Your task to perform on an android device: Open Wikipedia Image 0: 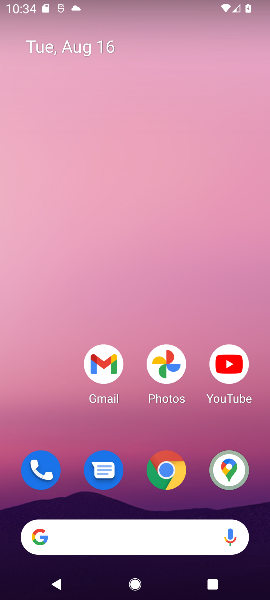
Step 0: click (47, 396)
Your task to perform on an android device: Open Wikipedia Image 1: 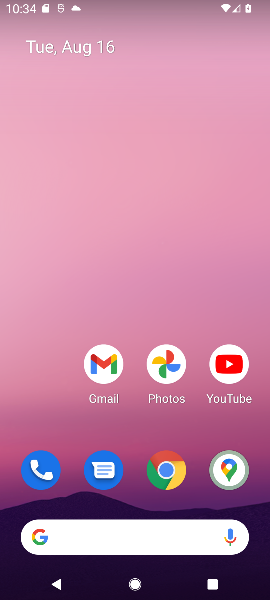
Step 1: click (163, 470)
Your task to perform on an android device: Open Wikipedia Image 2: 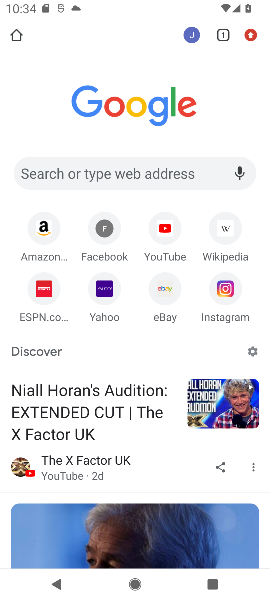
Step 2: click (226, 229)
Your task to perform on an android device: Open Wikipedia Image 3: 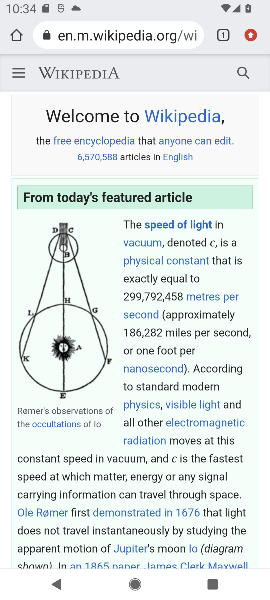
Step 3: task complete